Your task to perform on an android device: Open eBay Image 0: 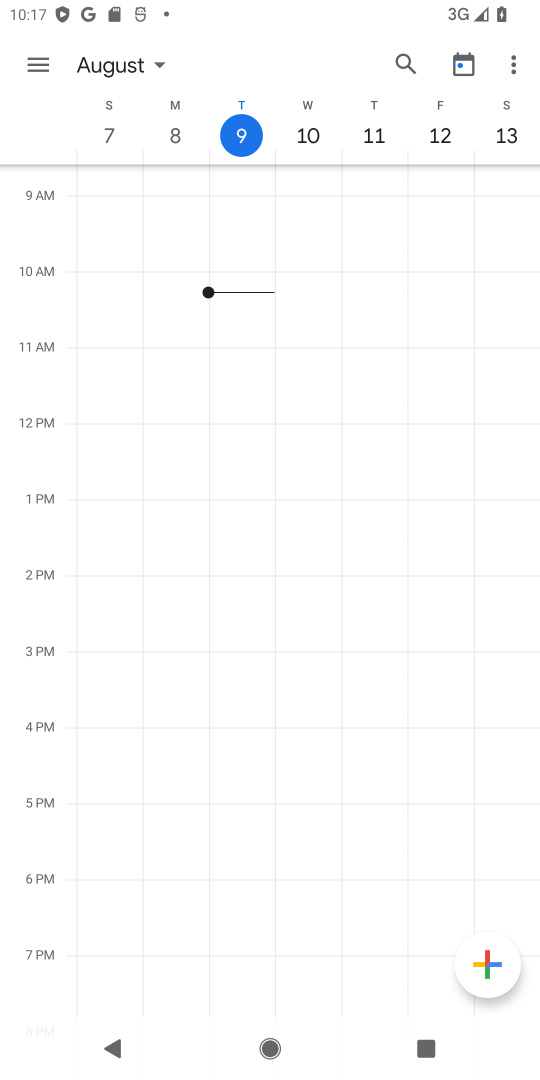
Step 0: press home button
Your task to perform on an android device: Open eBay Image 1: 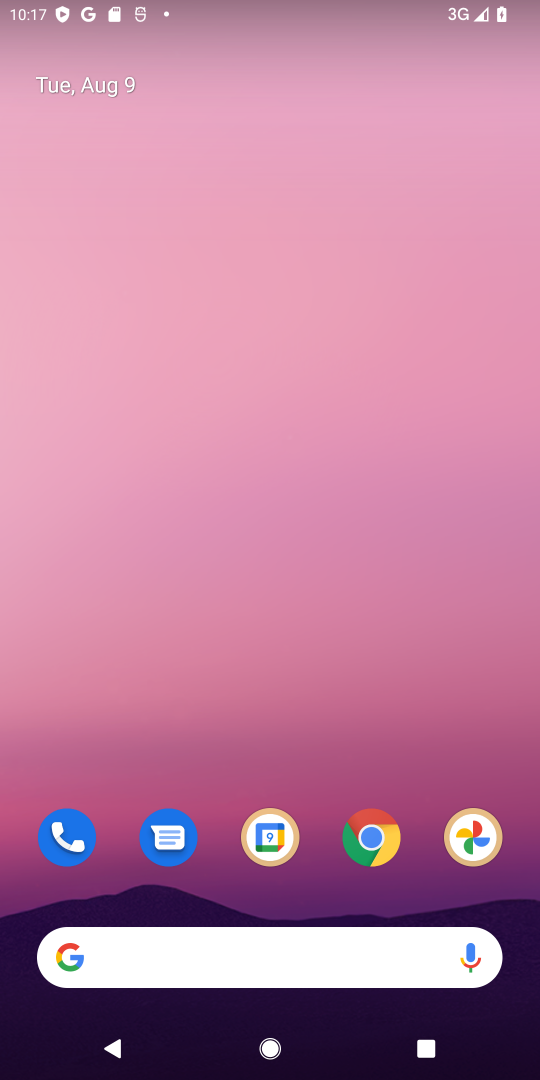
Step 1: click (374, 837)
Your task to perform on an android device: Open eBay Image 2: 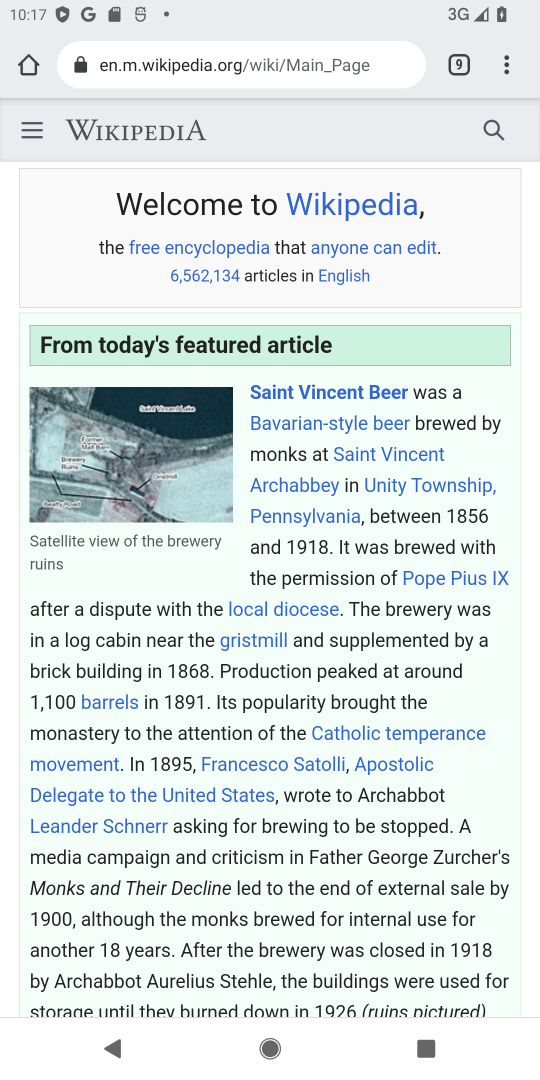
Step 2: click (509, 71)
Your task to perform on an android device: Open eBay Image 3: 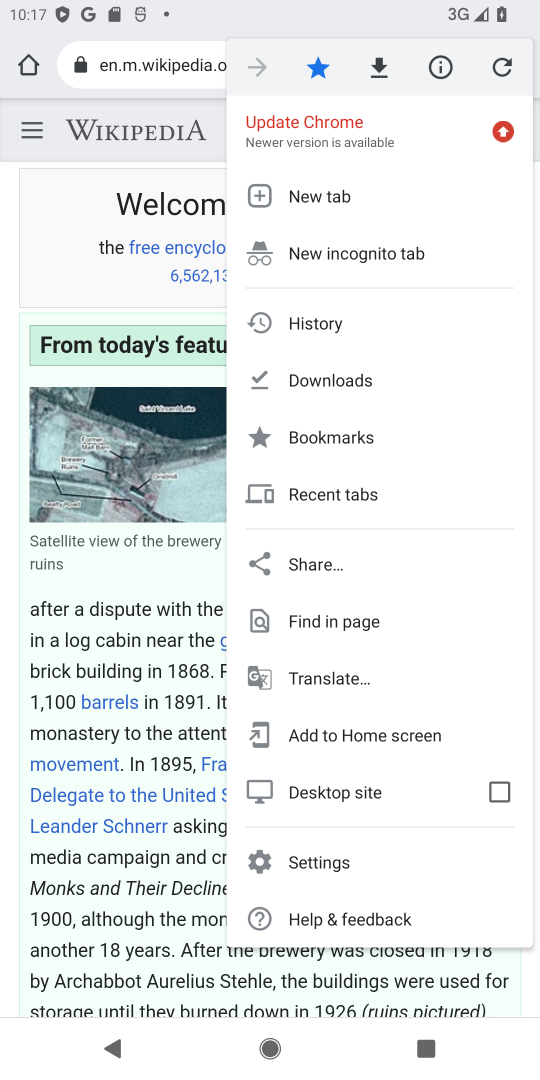
Step 3: click (309, 196)
Your task to perform on an android device: Open eBay Image 4: 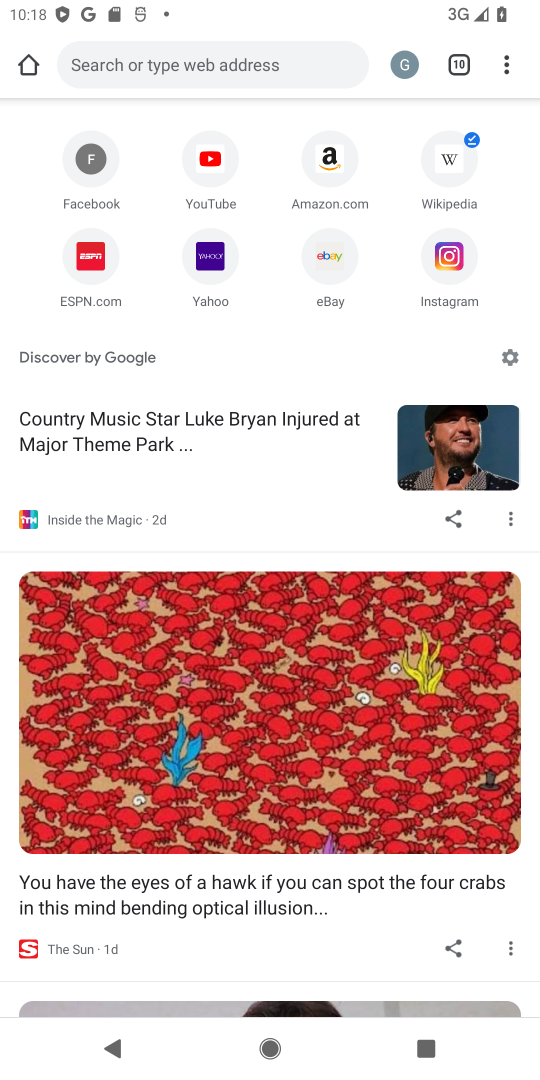
Step 4: click (325, 256)
Your task to perform on an android device: Open eBay Image 5: 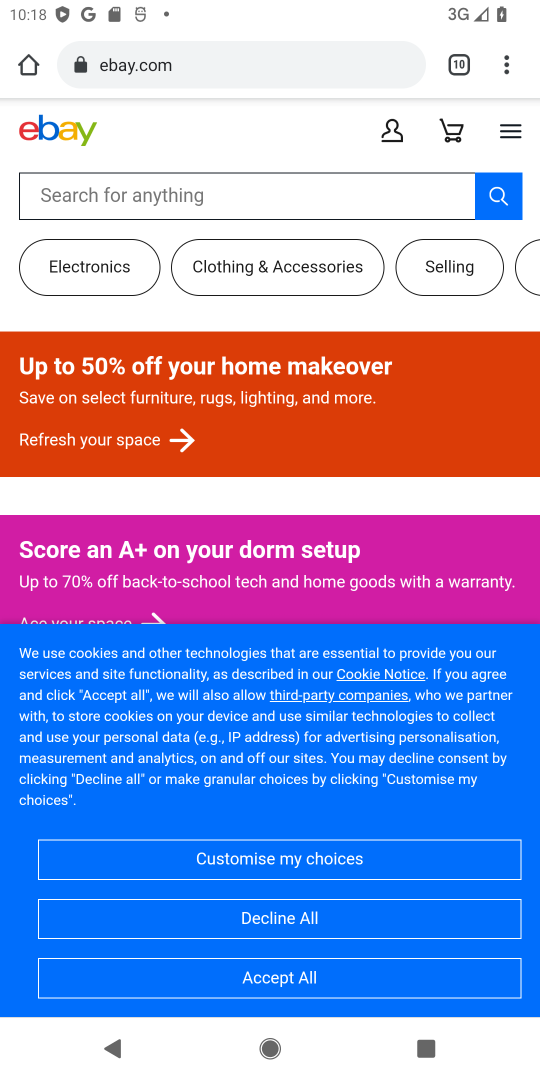
Step 5: task complete